Your task to perform on an android device: View the shopping cart on amazon. Add alienware aurora to the cart on amazon, then select checkout. Image 0: 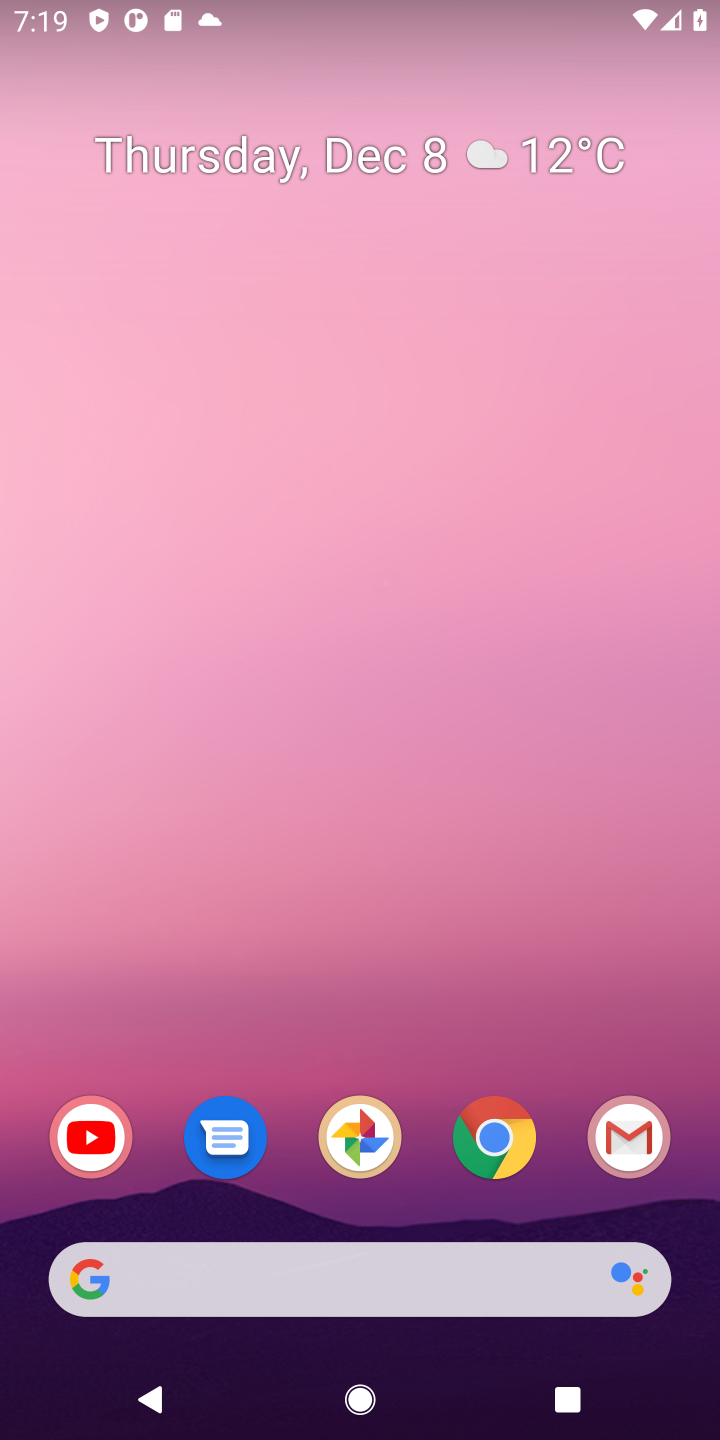
Step 0: click (459, 1136)
Your task to perform on an android device: View the shopping cart on amazon. Add alienware aurora to the cart on amazon, then select checkout. Image 1: 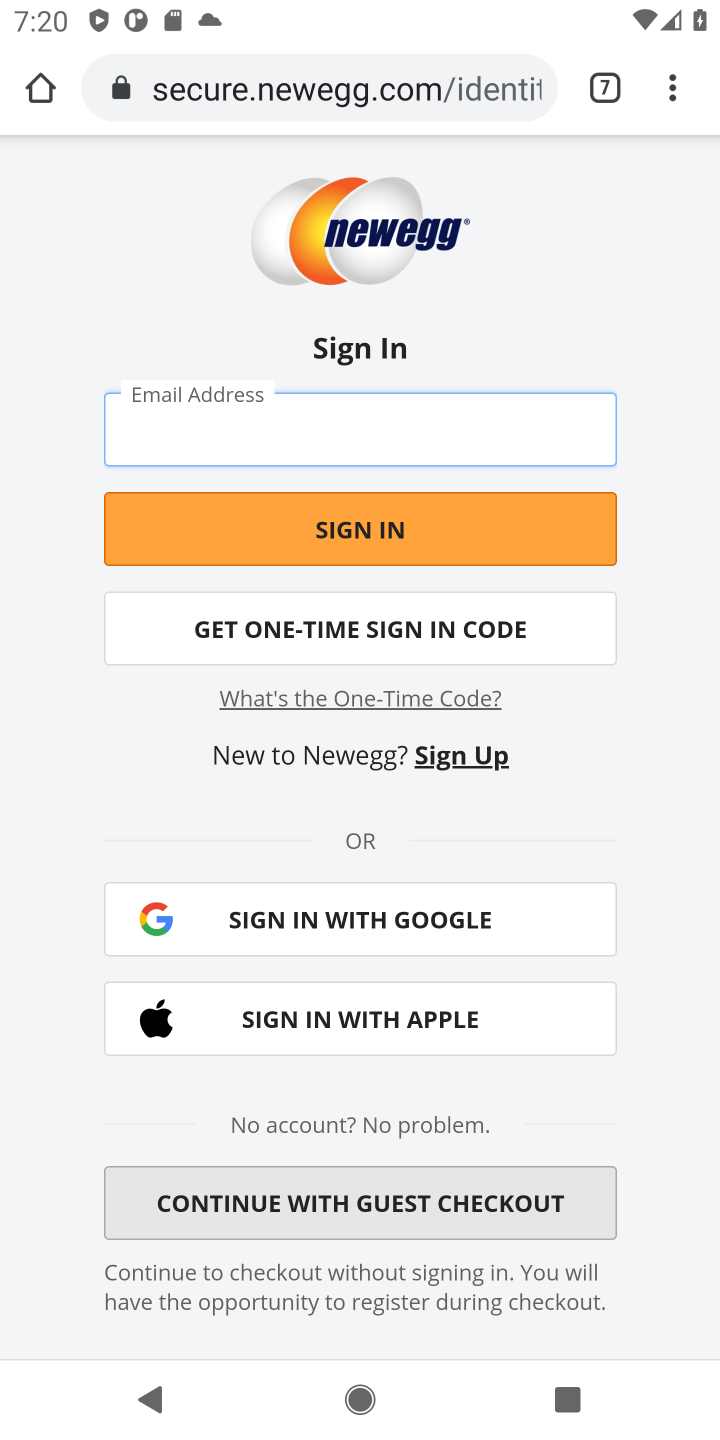
Step 1: click (605, 101)
Your task to perform on an android device: View the shopping cart on amazon. Add alienware aurora to the cart on amazon, then select checkout. Image 2: 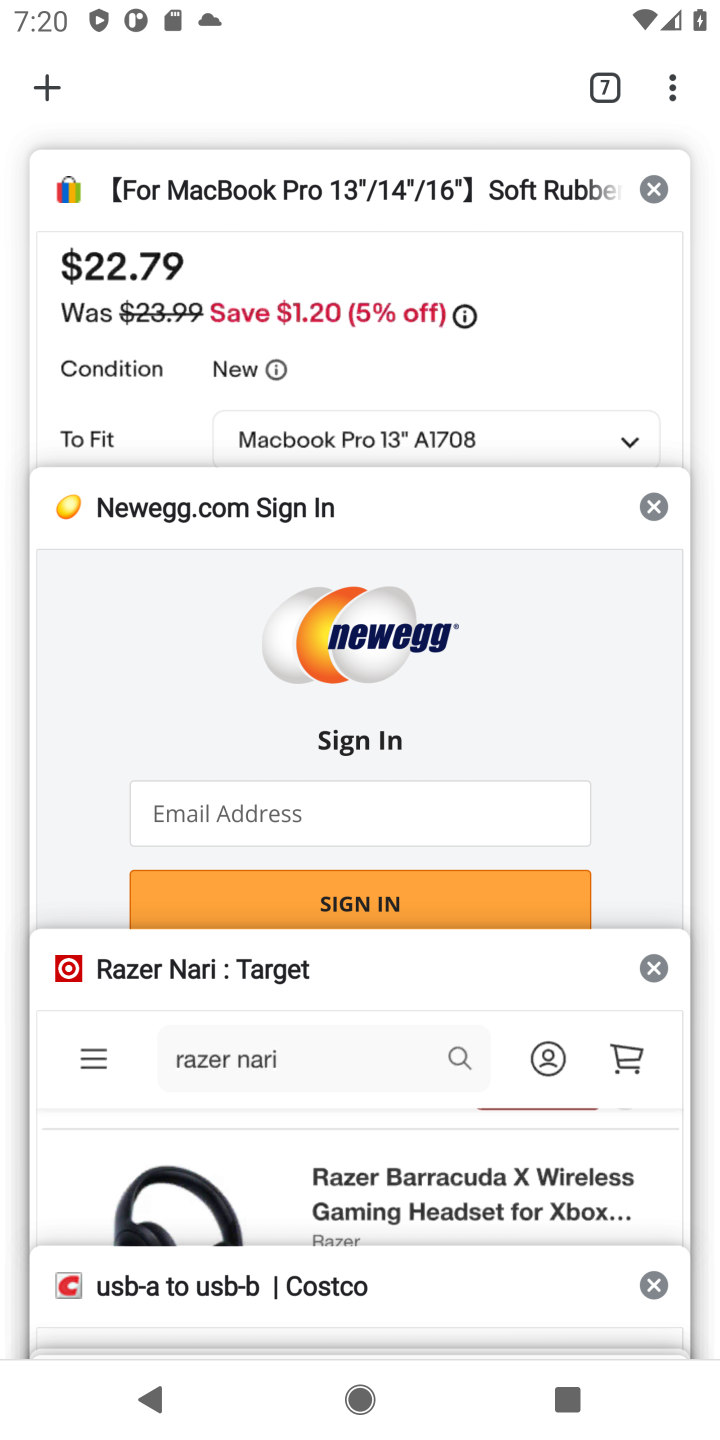
Step 2: drag from (218, 1289) to (295, 494)
Your task to perform on an android device: View the shopping cart on amazon. Add alienware aurora to the cart on amazon, then select checkout. Image 3: 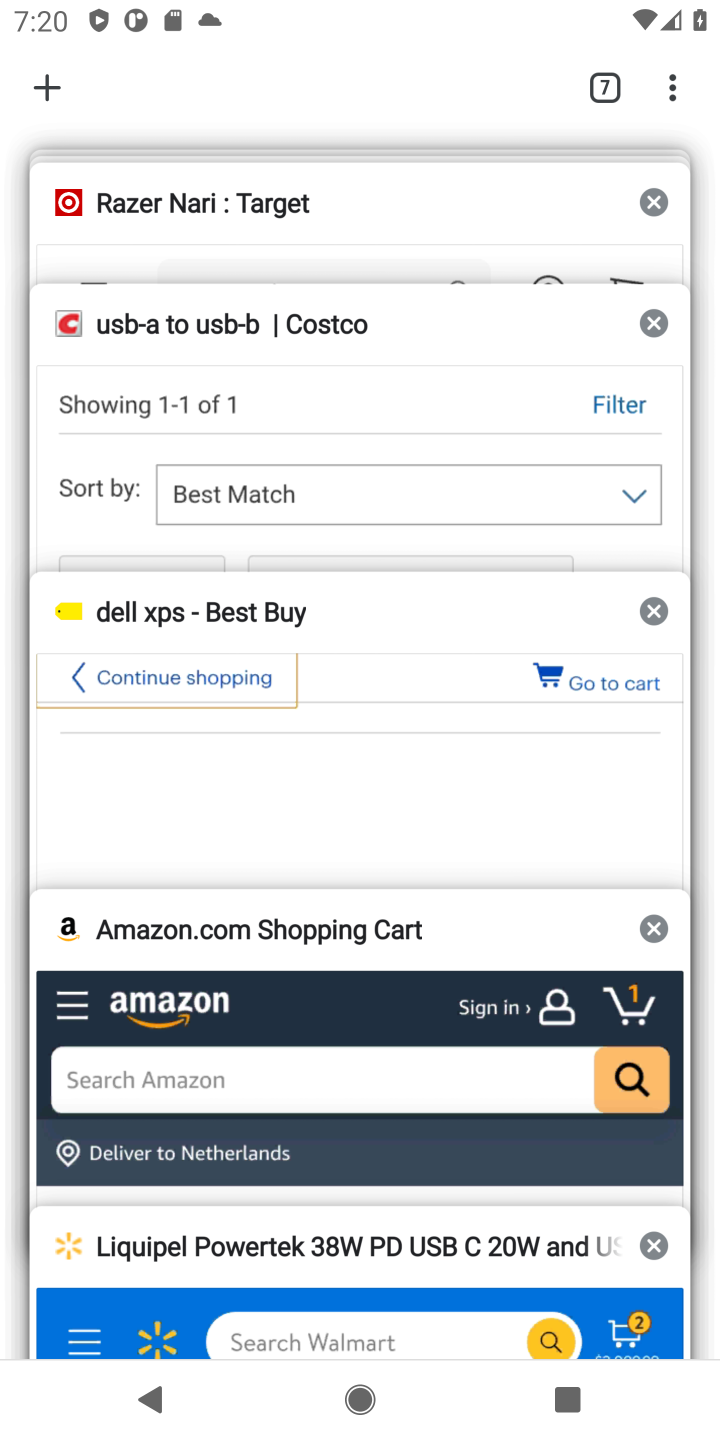
Step 3: click (357, 972)
Your task to perform on an android device: View the shopping cart on amazon. Add alienware aurora to the cart on amazon, then select checkout. Image 4: 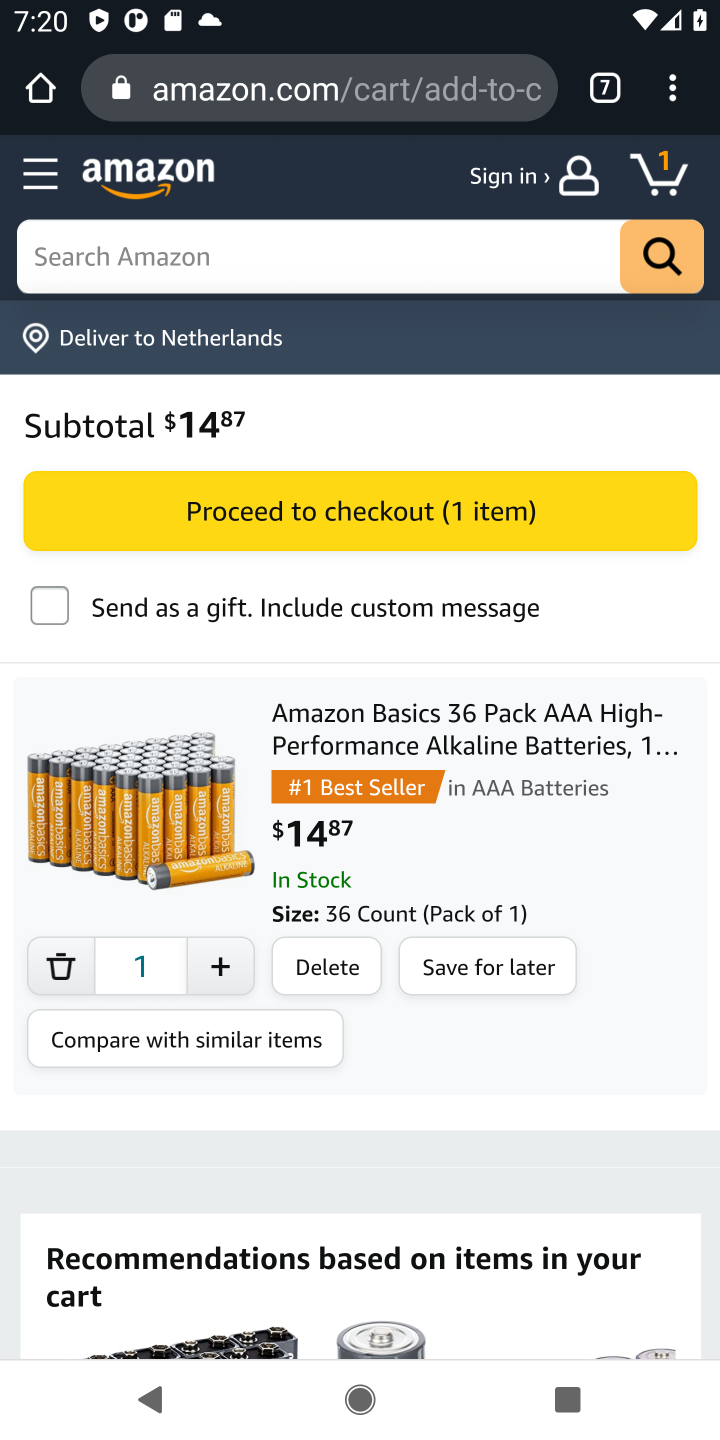
Step 4: click (192, 258)
Your task to perform on an android device: View the shopping cart on amazon. Add alienware aurora to the cart on amazon, then select checkout. Image 5: 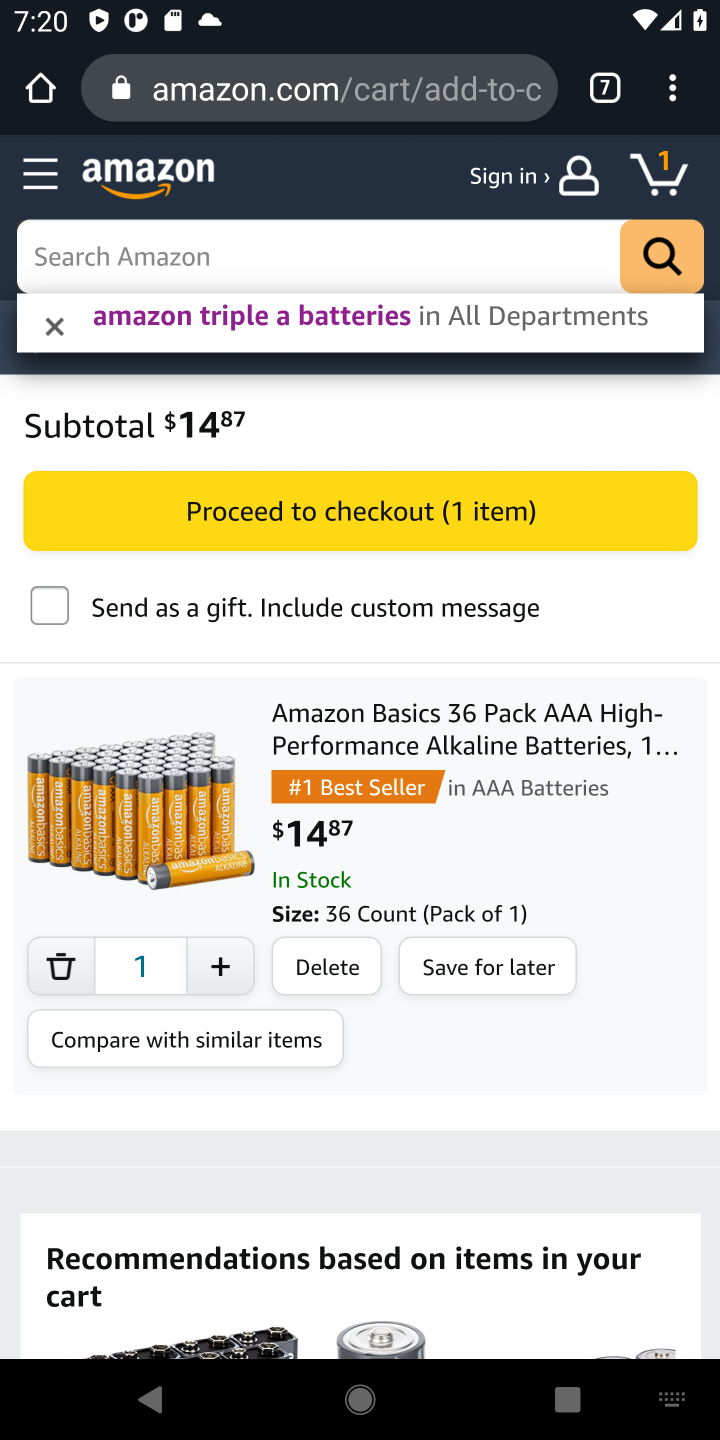
Step 5: type "alienware aurora"
Your task to perform on an android device: View the shopping cart on amazon. Add alienware aurora to the cart on amazon, then select checkout. Image 6: 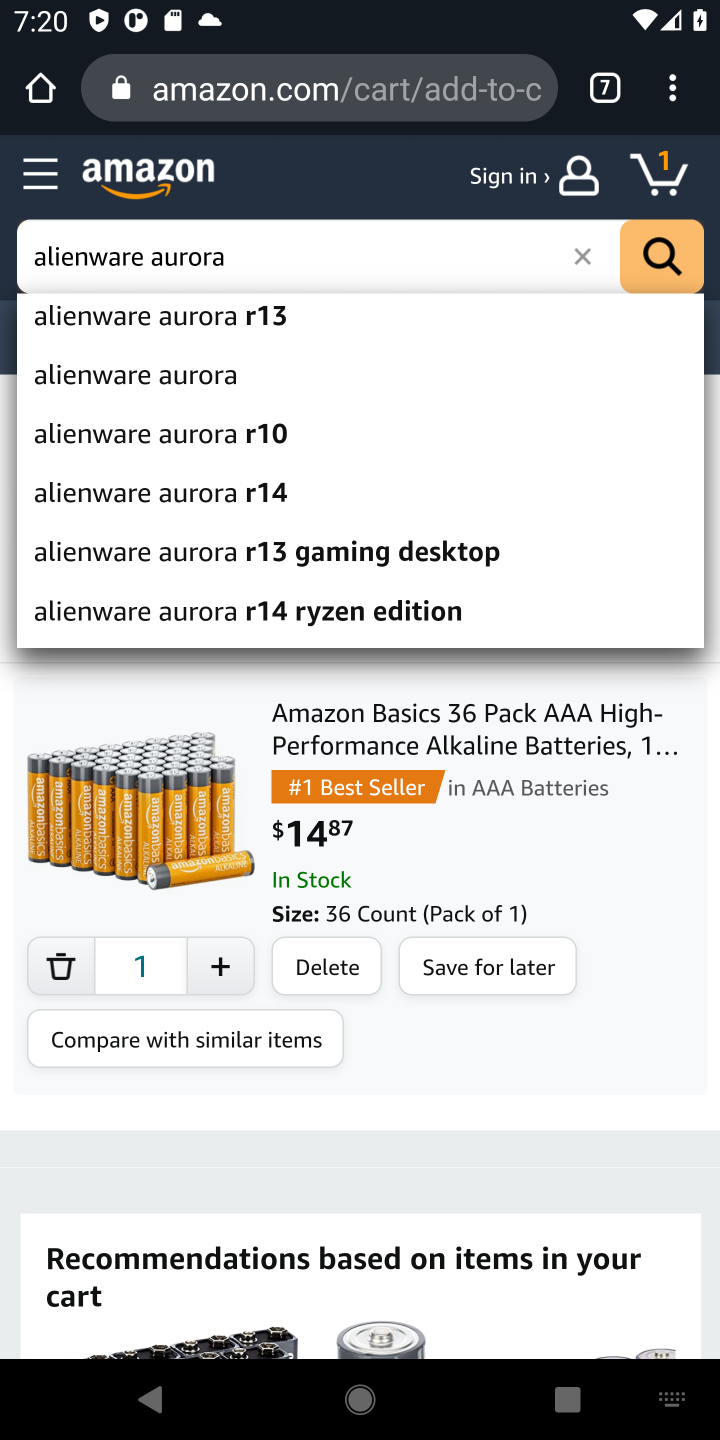
Step 6: click (122, 370)
Your task to perform on an android device: View the shopping cart on amazon. Add alienware aurora to the cart on amazon, then select checkout. Image 7: 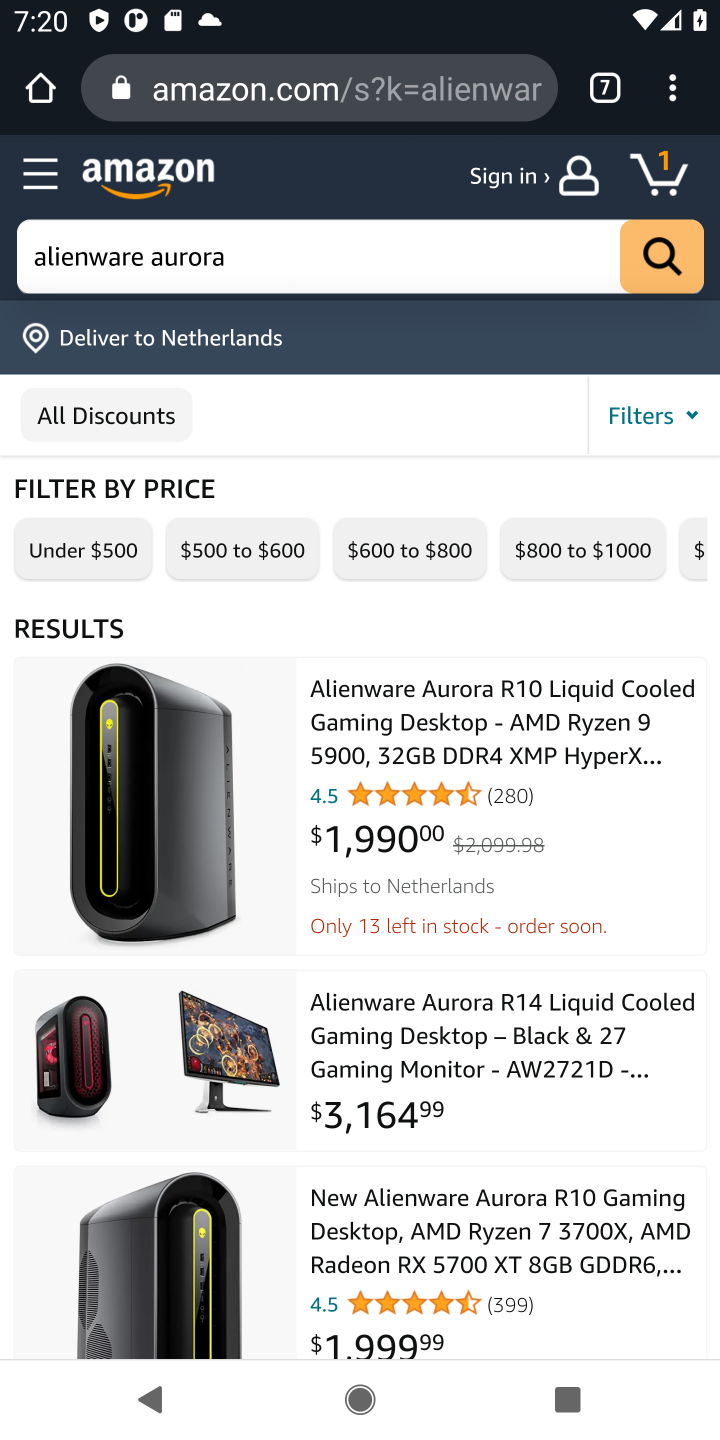
Step 7: click (485, 735)
Your task to perform on an android device: View the shopping cart on amazon. Add alienware aurora to the cart on amazon, then select checkout. Image 8: 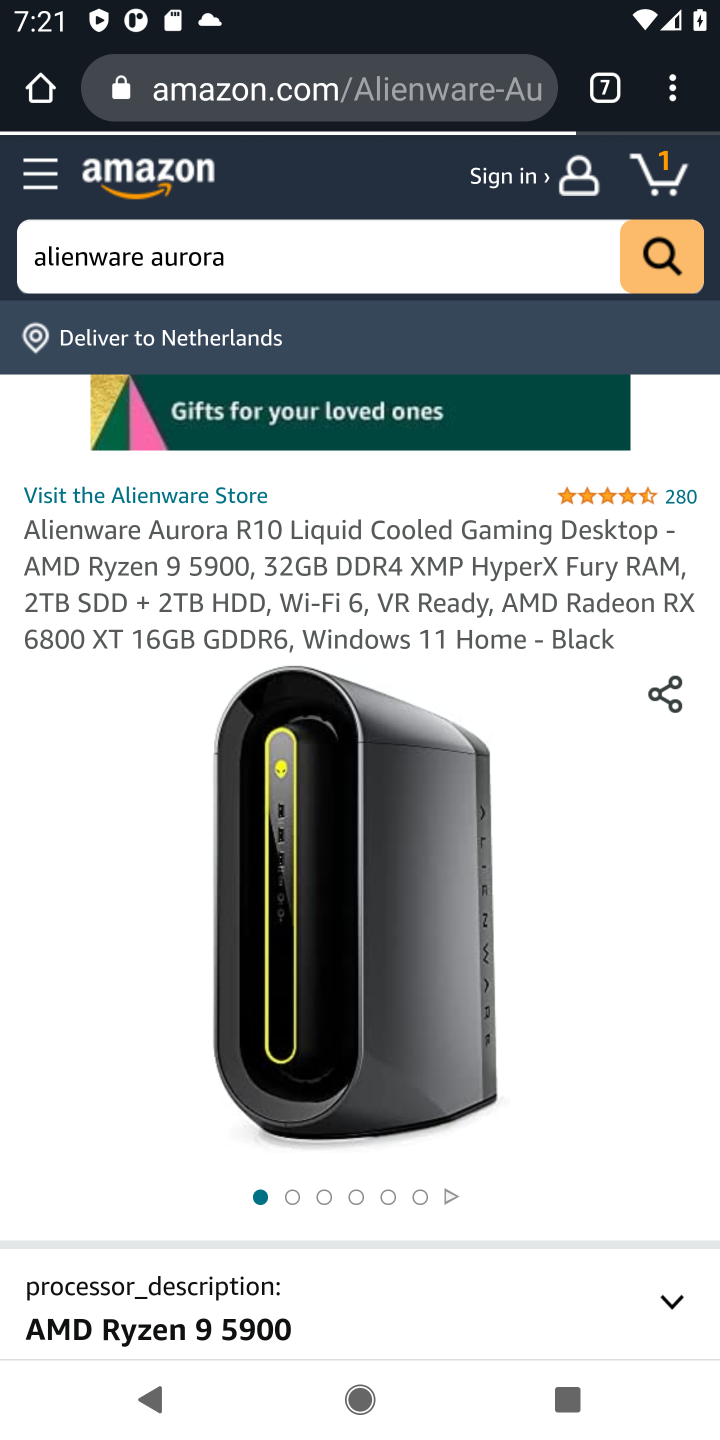
Step 8: drag from (607, 1072) to (640, 434)
Your task to perform on an android device: View the shopping cart on amazon. Add alienware aurora to the cart on amazon, then select checkout. Image 9: 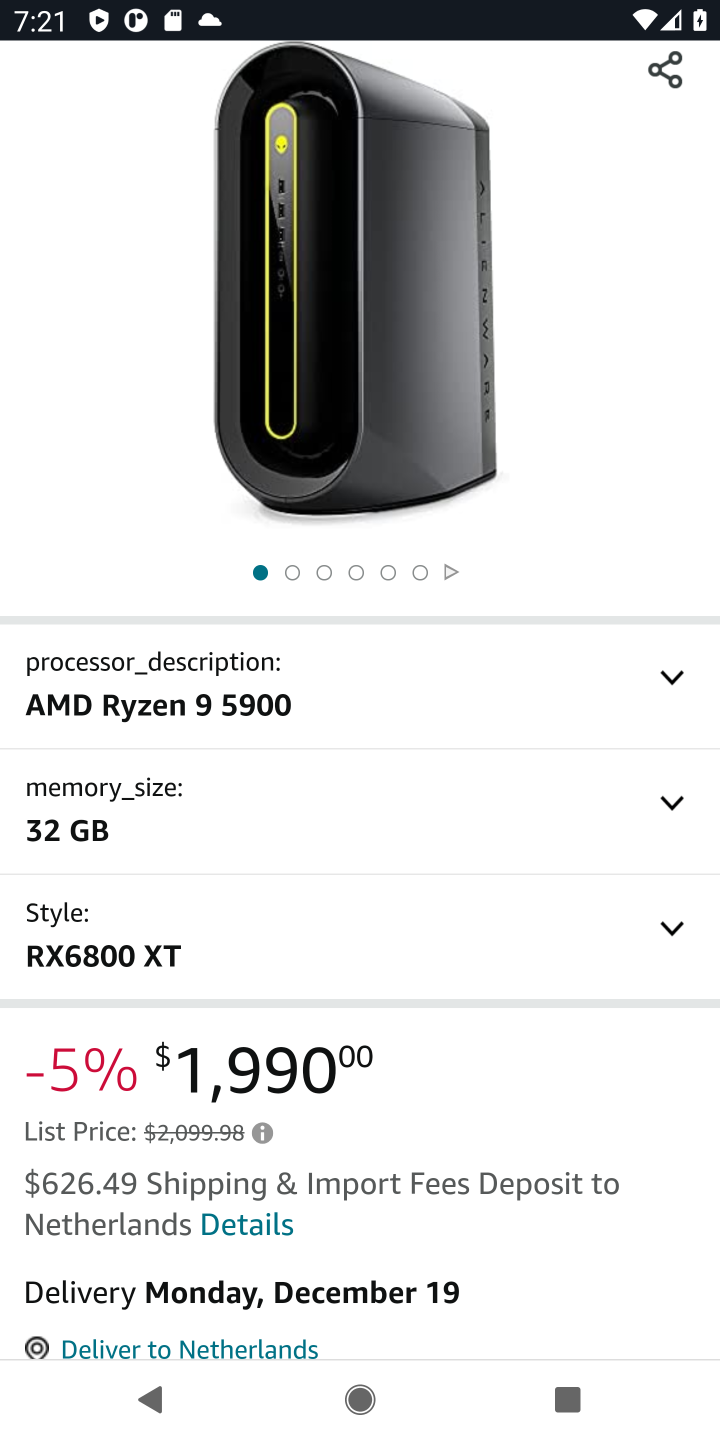
Step 9: drag from (433, 1249) to (580, 294)
Your task to perform on an android device: View the shopping cart on amazon. Add alienware aurora to the cart on amazon, then select checkout. Image 10: 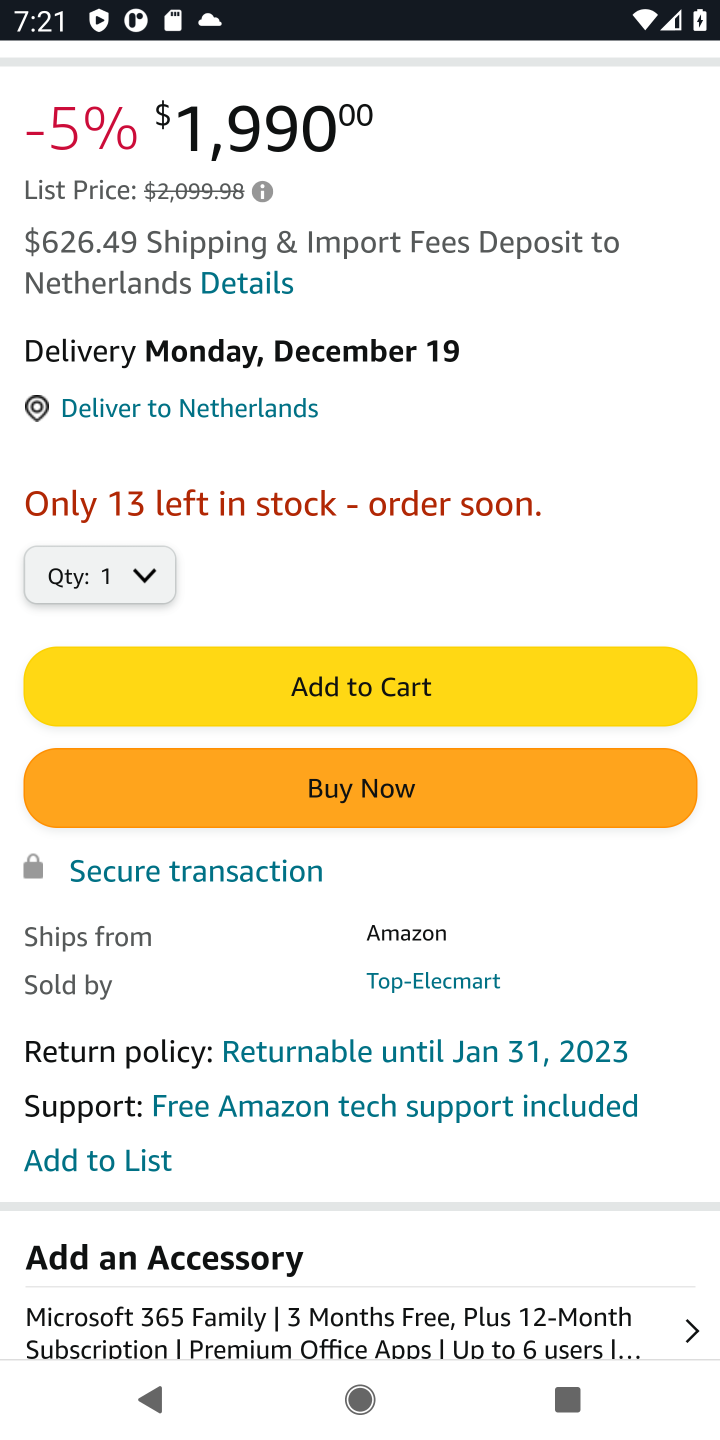
Step 10: click (415, 679)
Your task to perform on an android device: View the shopping cart on amazon. Add alienware aurora to the cart on amazon, then select checkout. Image 11: 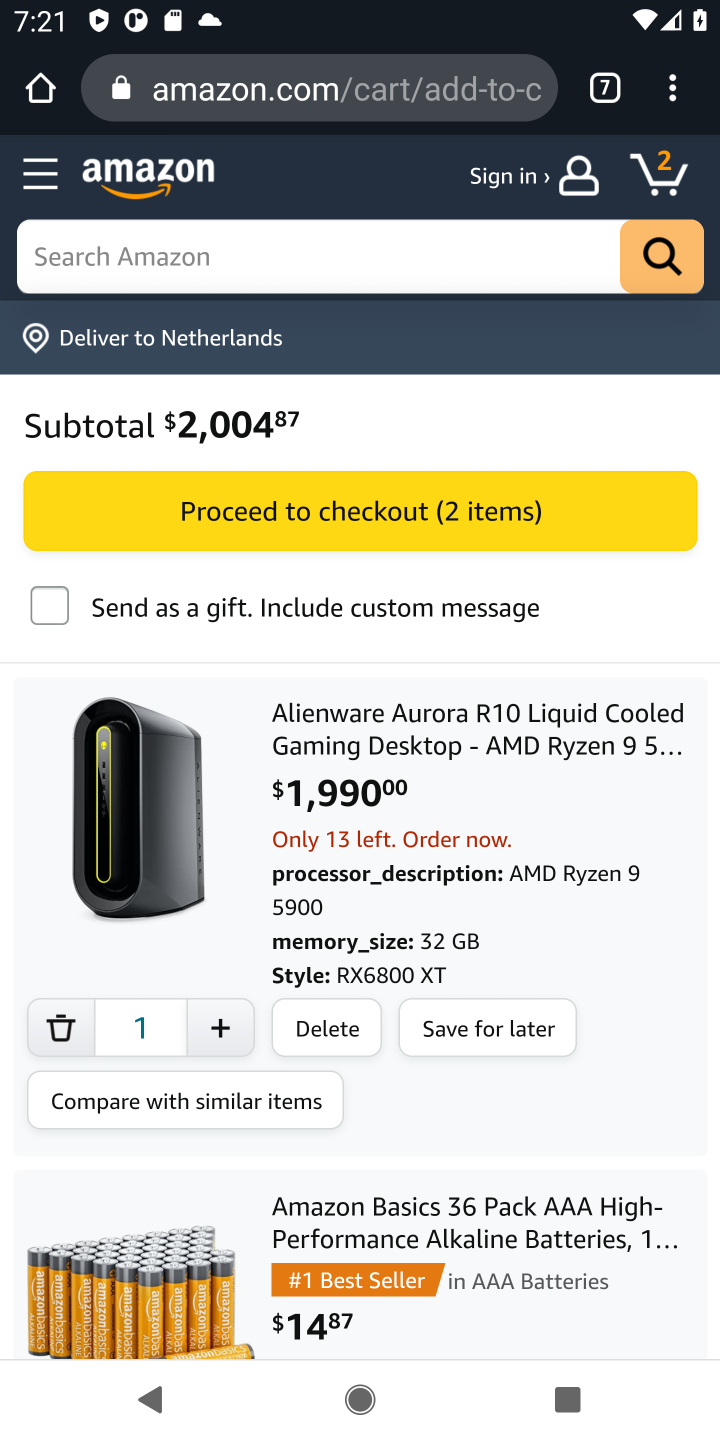
Step 11: click (459, 519)
Your task to perform on an android device: View the shopping cart on amazon. Add alienware aurora to the cart on amazon, then select checkout. Image 12: 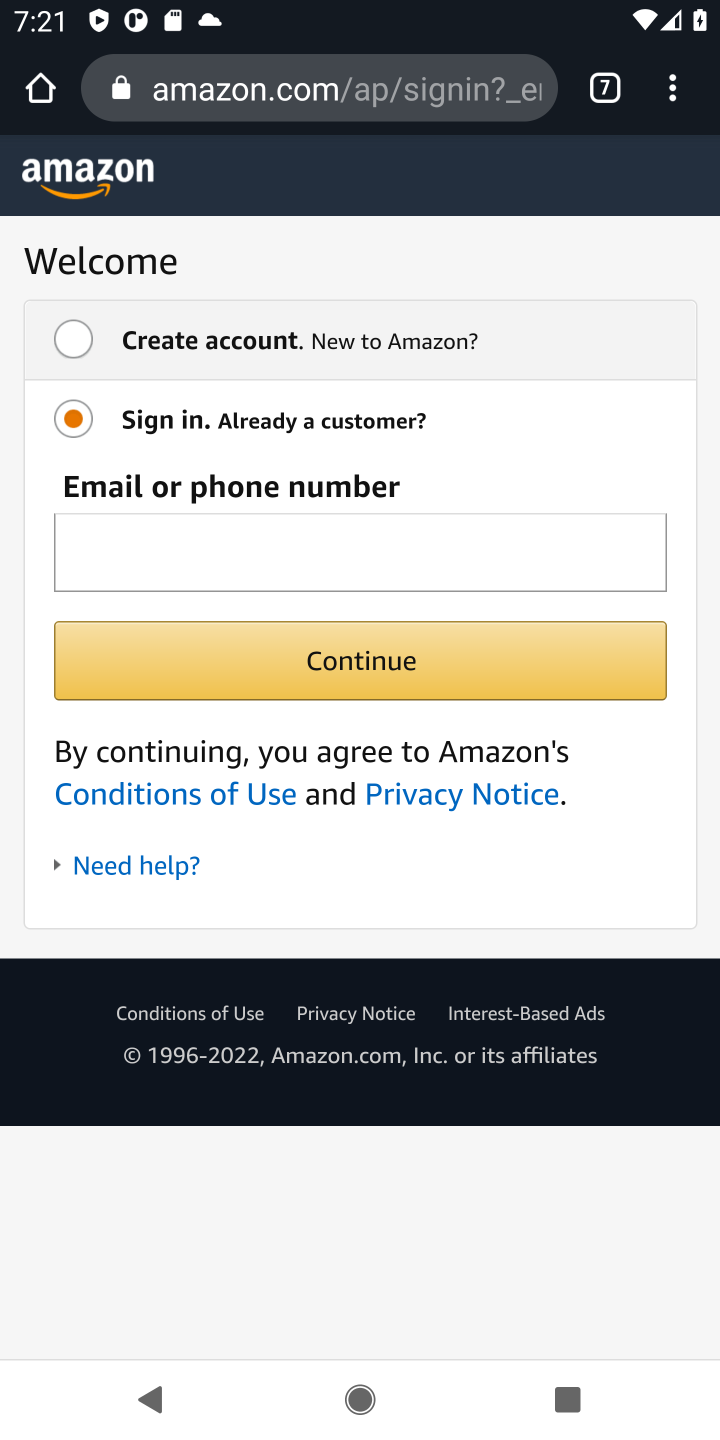
Step 12: task complete